Your task to perform on an android device: Open notification settings Image 0: 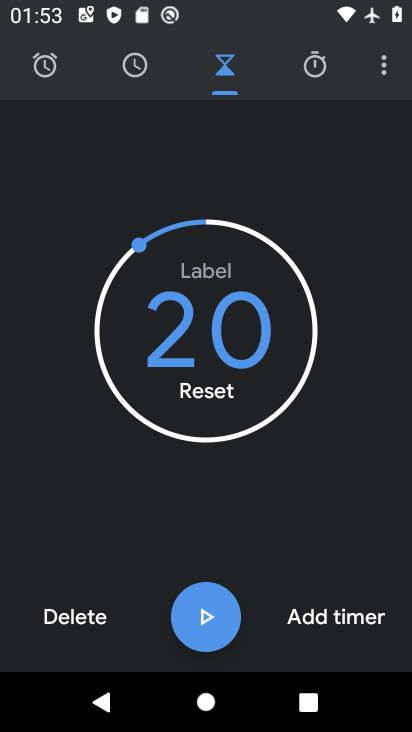
Step 0: press home button
Your task to perform on an android device: Open notification settings Image 1: 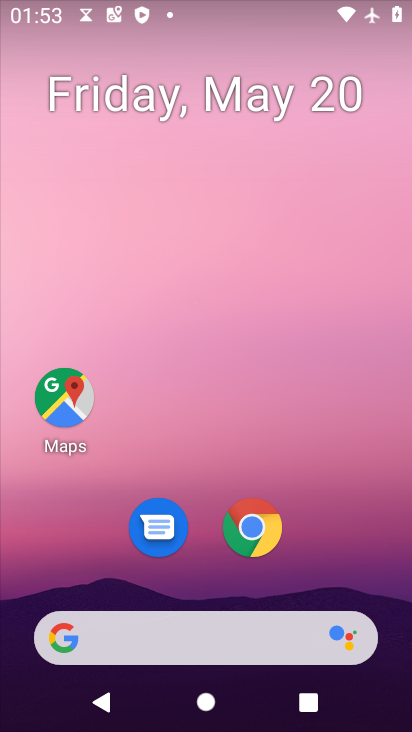
Step 1: drag from (183, 629) to (274, 259)
Your task to perform on an android device: Open notification settings Image 2: 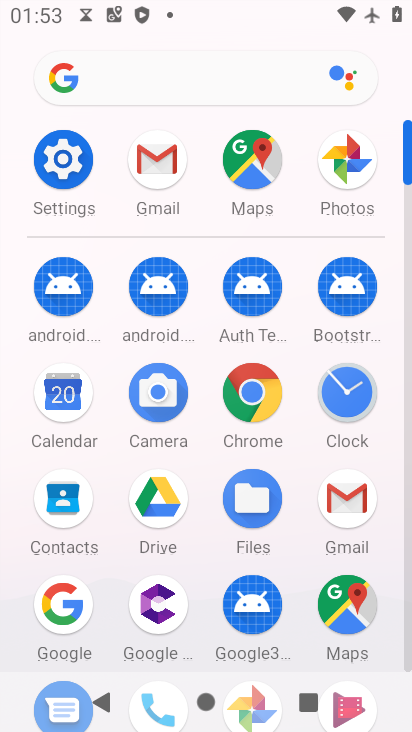
Step 2: click (65, 169)
Your task to perform on an android device: Open notification settings Image 3: 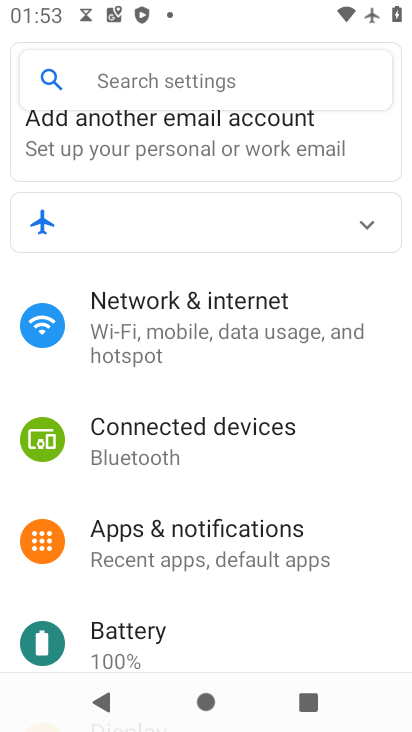
Step 3: click (224, 536)
Your task to perform on an android device: Open notification settings Image 4: 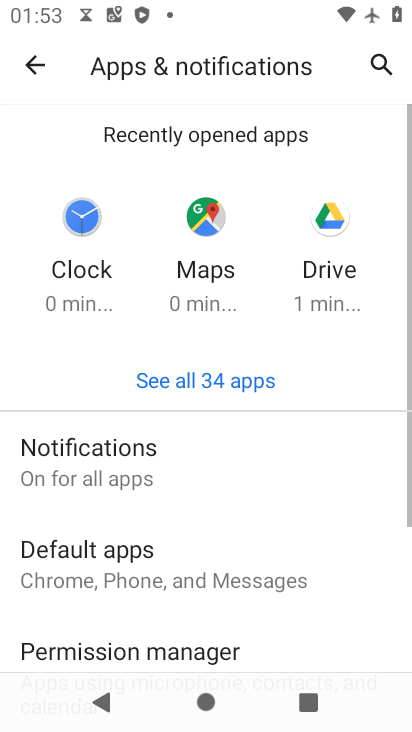
Step 4: click (127, 469)
Your task to perform on an android device: Open notification settings Image 5: 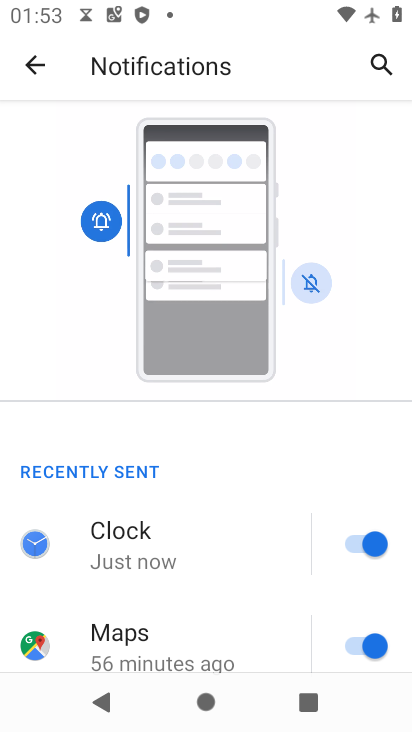
Step 5: task complete